Your task to perform on an android device: Open the stopwatch Image 0: 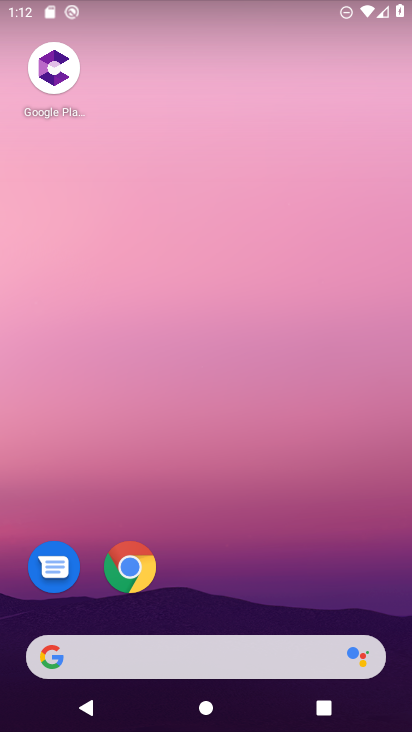
Step 0: drag from (402, 691) to (297, 187)
Your task to perform on an android device: Open the stopwatch Image 1: 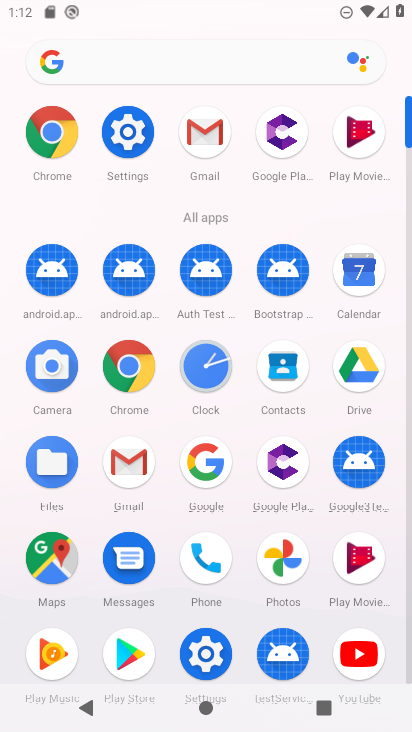
Step 1: click (209, 358)
Your task to perform on an android device: Open the stopwatch Image 2: 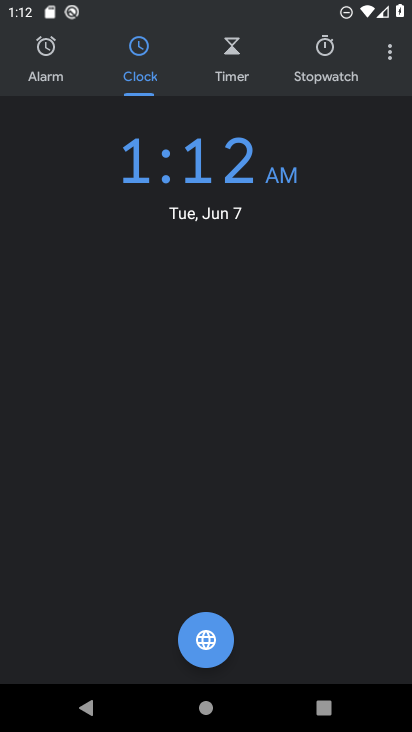
Step 2: click (238, 58)
Your task to perform on an android device: Open the stopwatch Image 3: 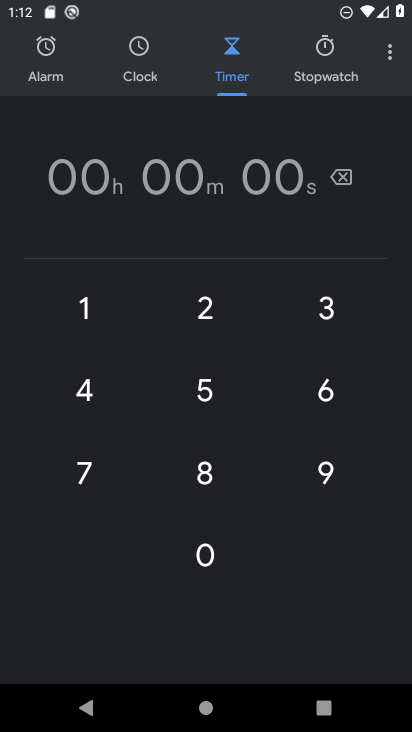
Step 3: click (292, 183)
Your task to perform on an android device: Open the stopwatch Image 4: 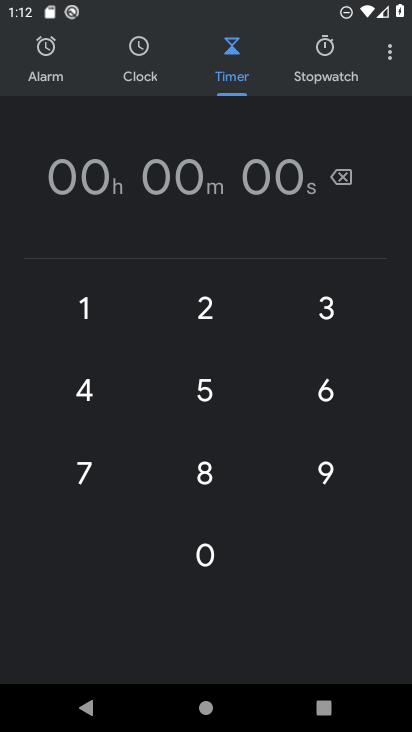
Step 4: click (211, 386)
Your task to perform on an android device: Open the stopwatch Image 5: 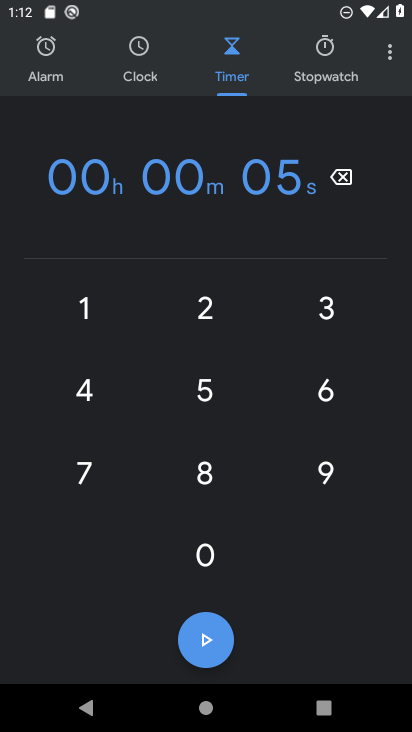
Step 5: click (206, 310)
Your task to perform on an android device: Open the stopwatch Image 6: 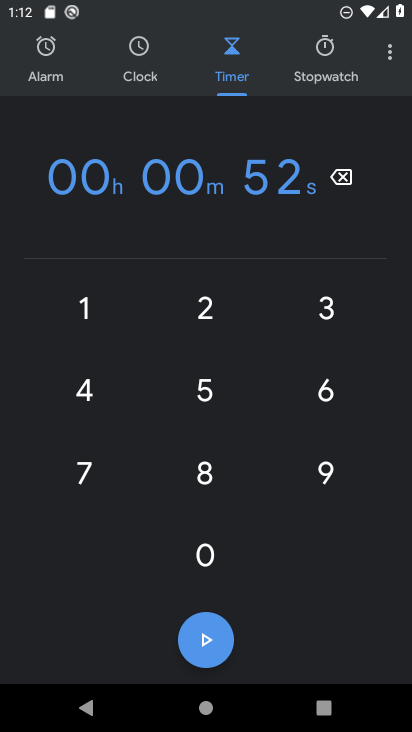
Step 6: click (191, 636)
Your task to perform on an android device: Open the stopwatch Image 7: 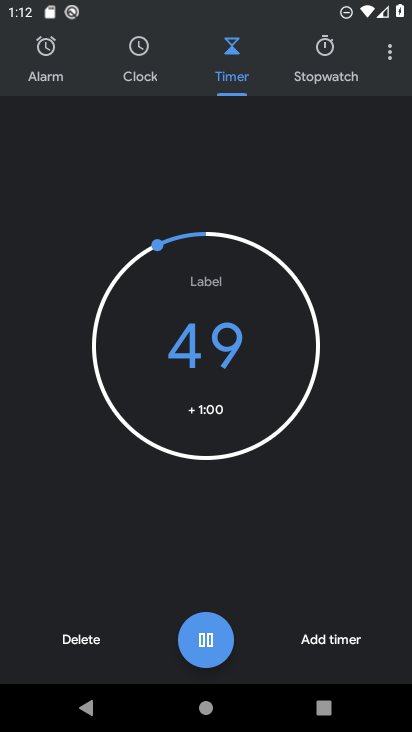
Step 7: click (209, 644)
Your task to perform on an android device: Open the stopwatch Image 8: 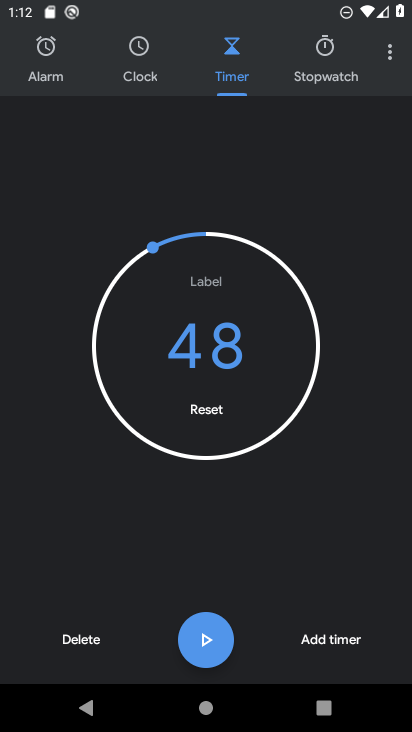
Step 8: task complete